Your task to perform on an android device: View the shopping cart on costco.com. Add bose soundlink mini to the cart on costco.com, then select checkout. Image 0: 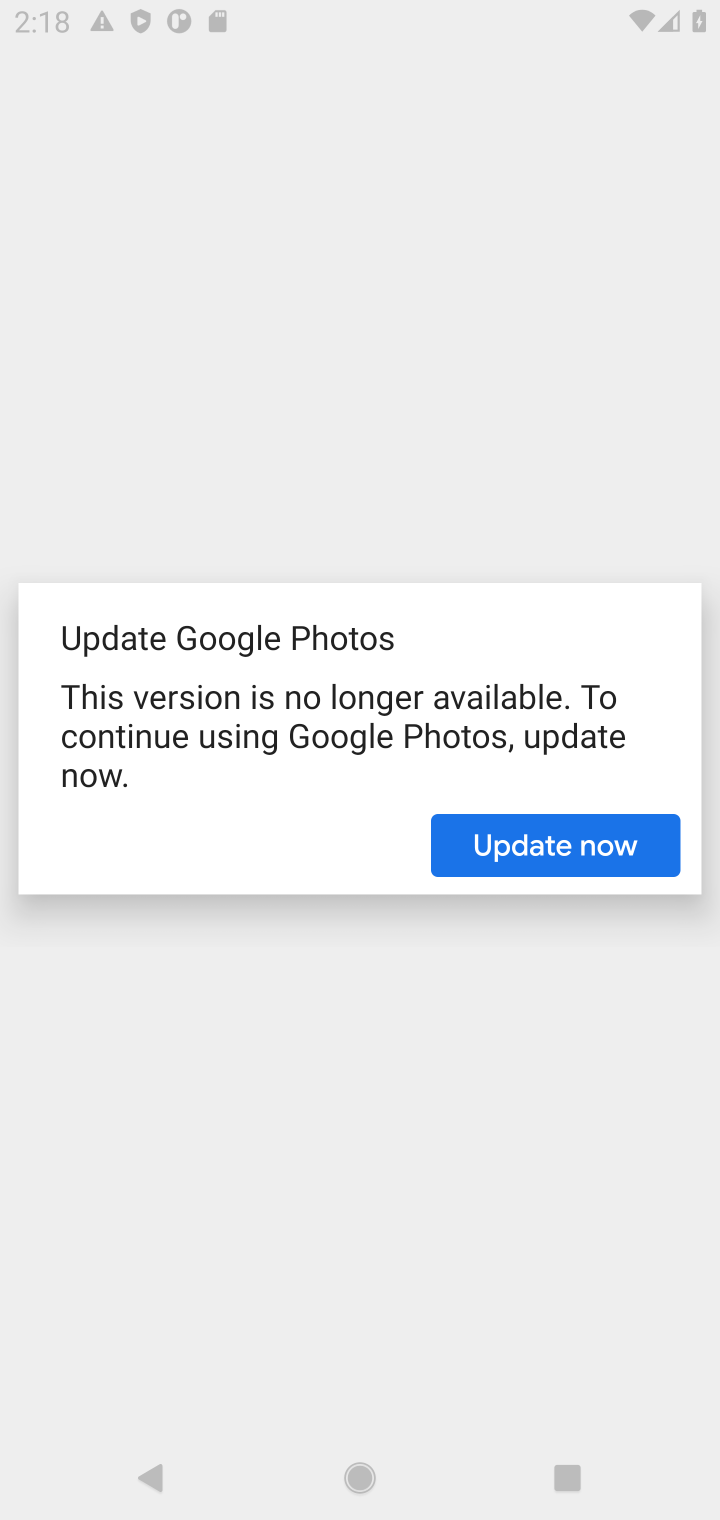
Step 0: press home button
Your task to perform on an android device: View the shopping cart on costco.com. Add bose soundlink mini to the cart on costco.com, then select checkout. Image 1: 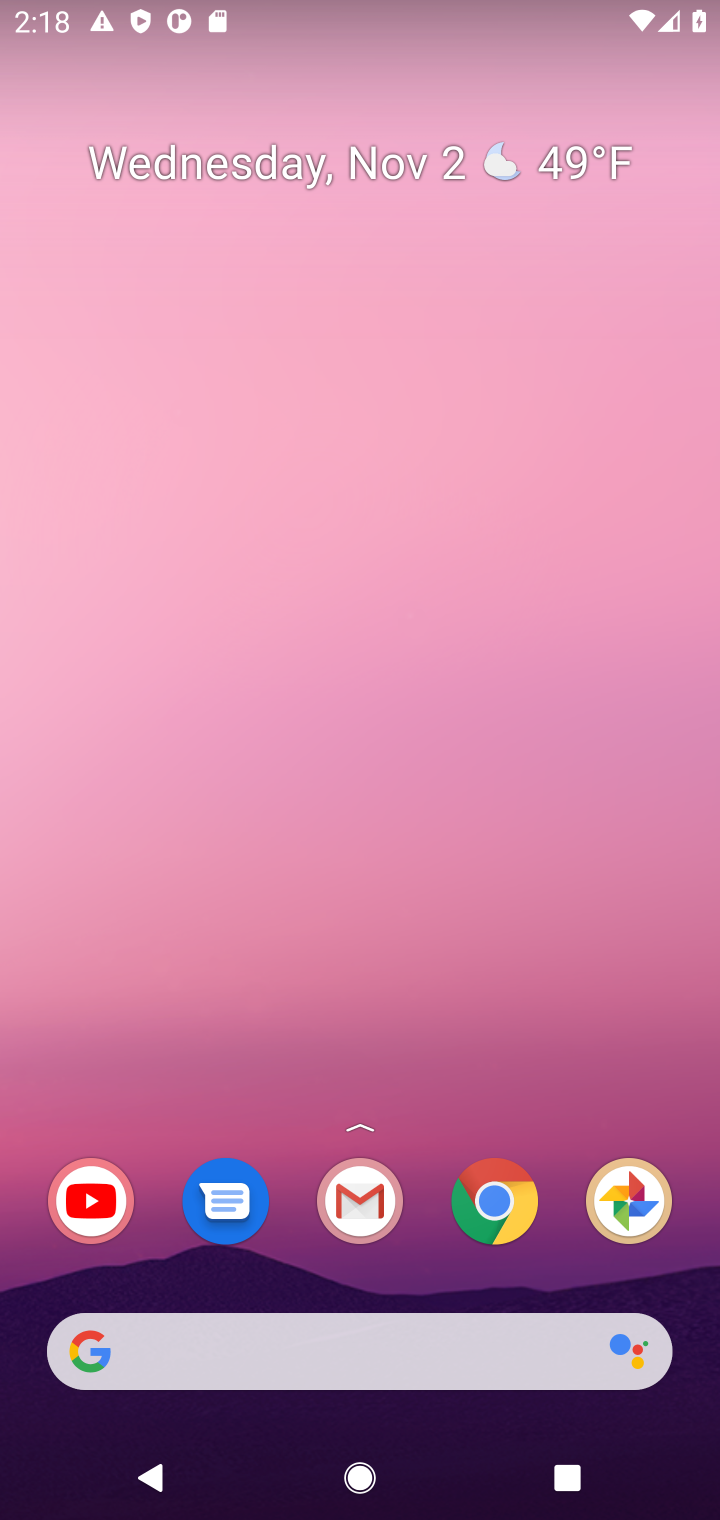
Step 1: click (489, 1187)
Your task to perform on an android device: View the shopping cart on costco.com. Add bose soundlink mini to the cart on costco.com, then select checkout. Image 2: 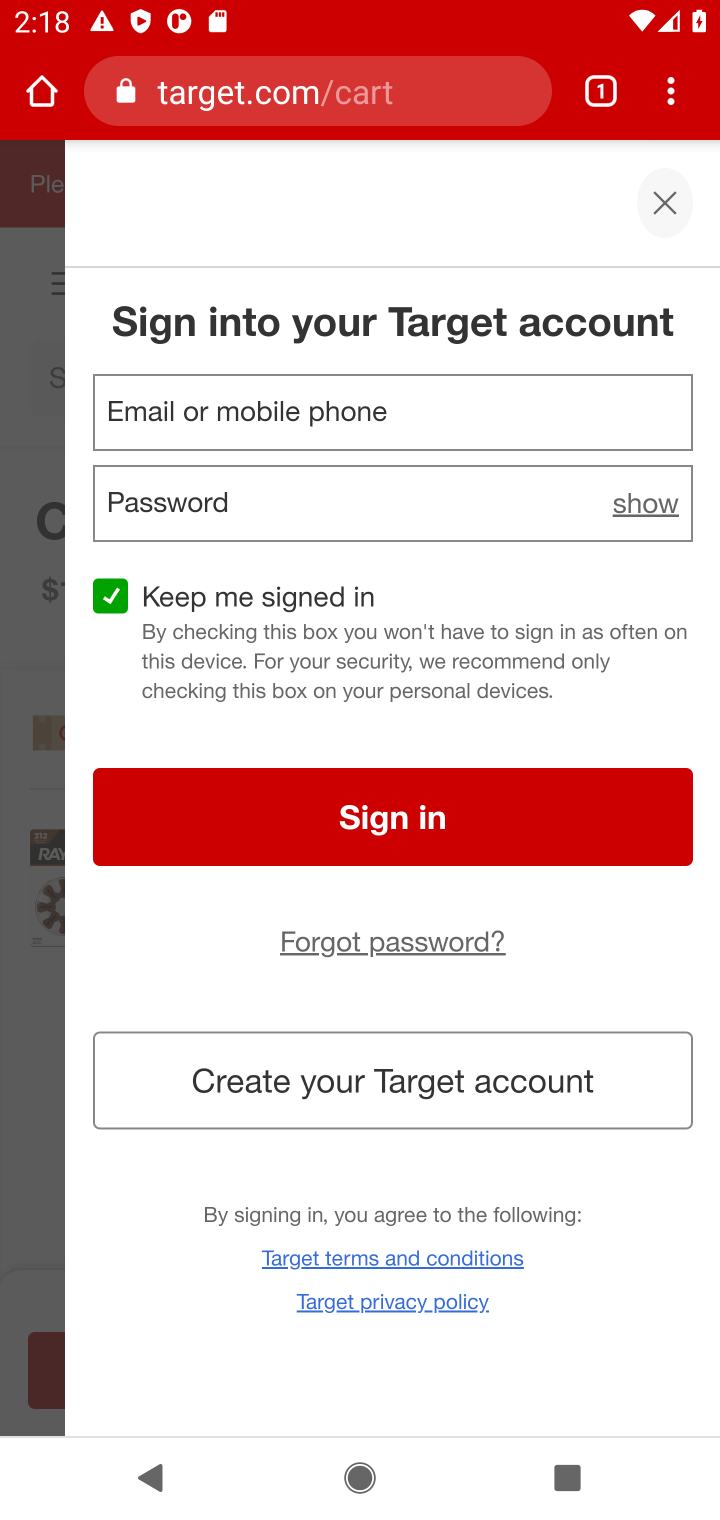
Step 2: click (329, 106)
Your task to perform on an android device: View the shopping cart on costco.com. Add bose soundlink mini to the cart on costco.com, then select checkout. Image 3: 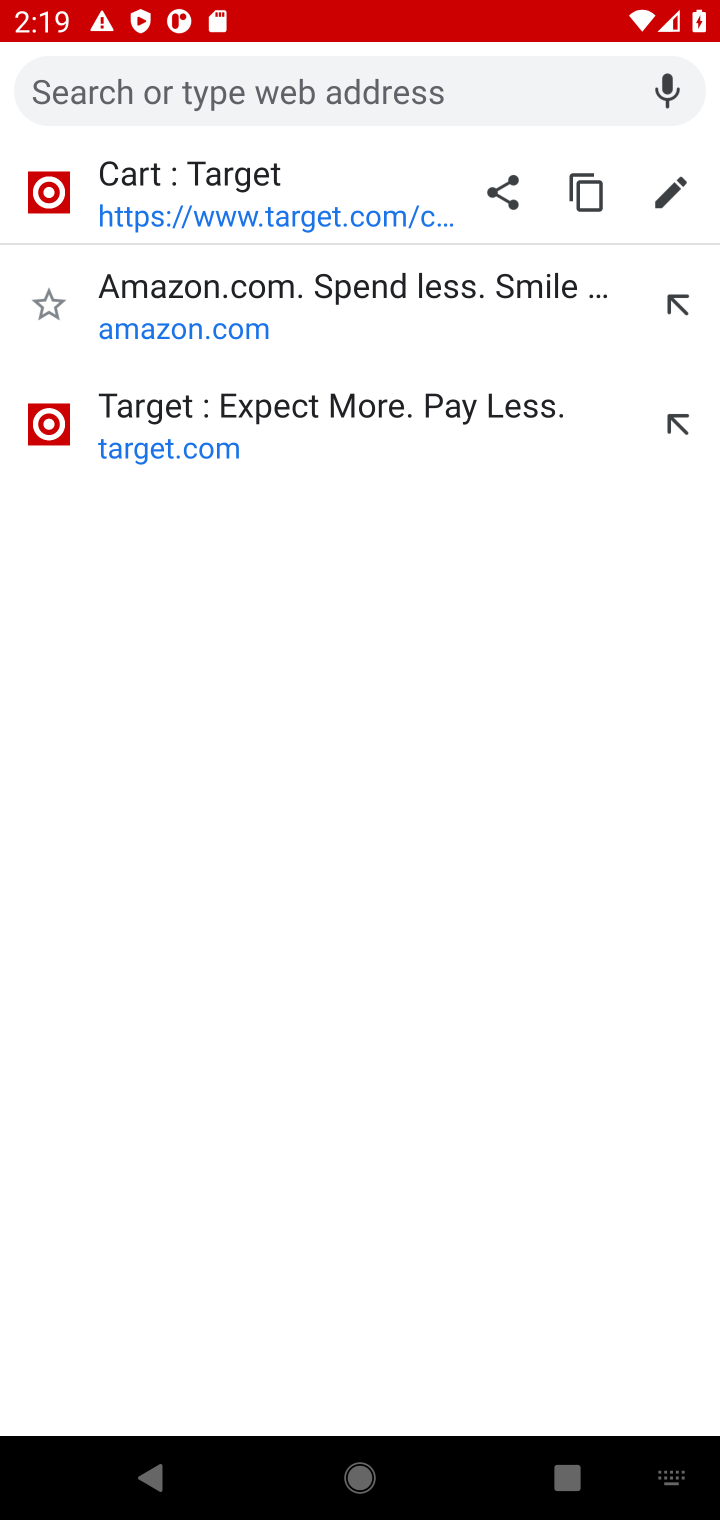
Step 3: type "costco.com"
Your task to perform on an android device: View the shopping cart on costco.com. Add bose soundlink mini to the cart on costco.com, then select checkout. Image 4: 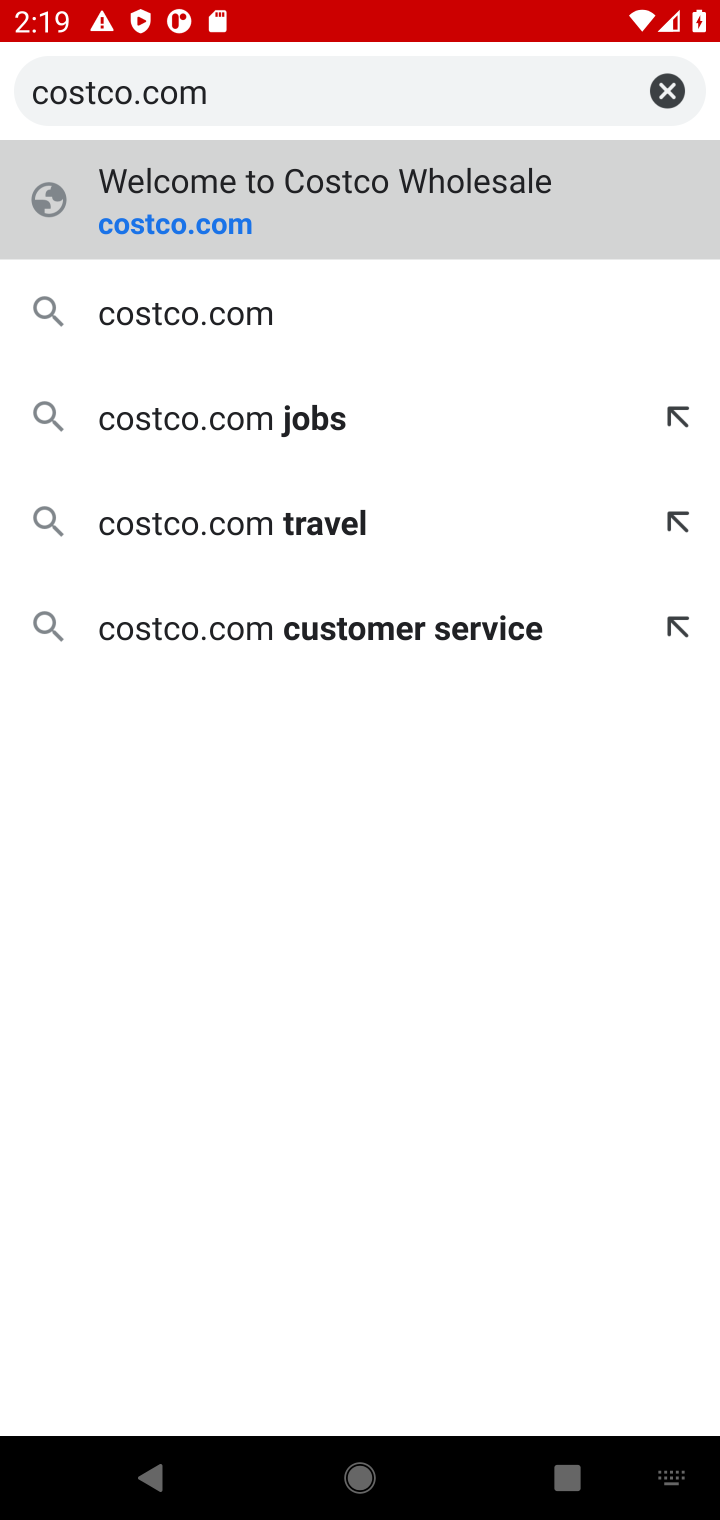
Step 4: press enter
Your task to perform on an android device: View the shopping cart on costco.com. Add bose soundlink mini to the cart on costco.com, then select checkout. Image 5: 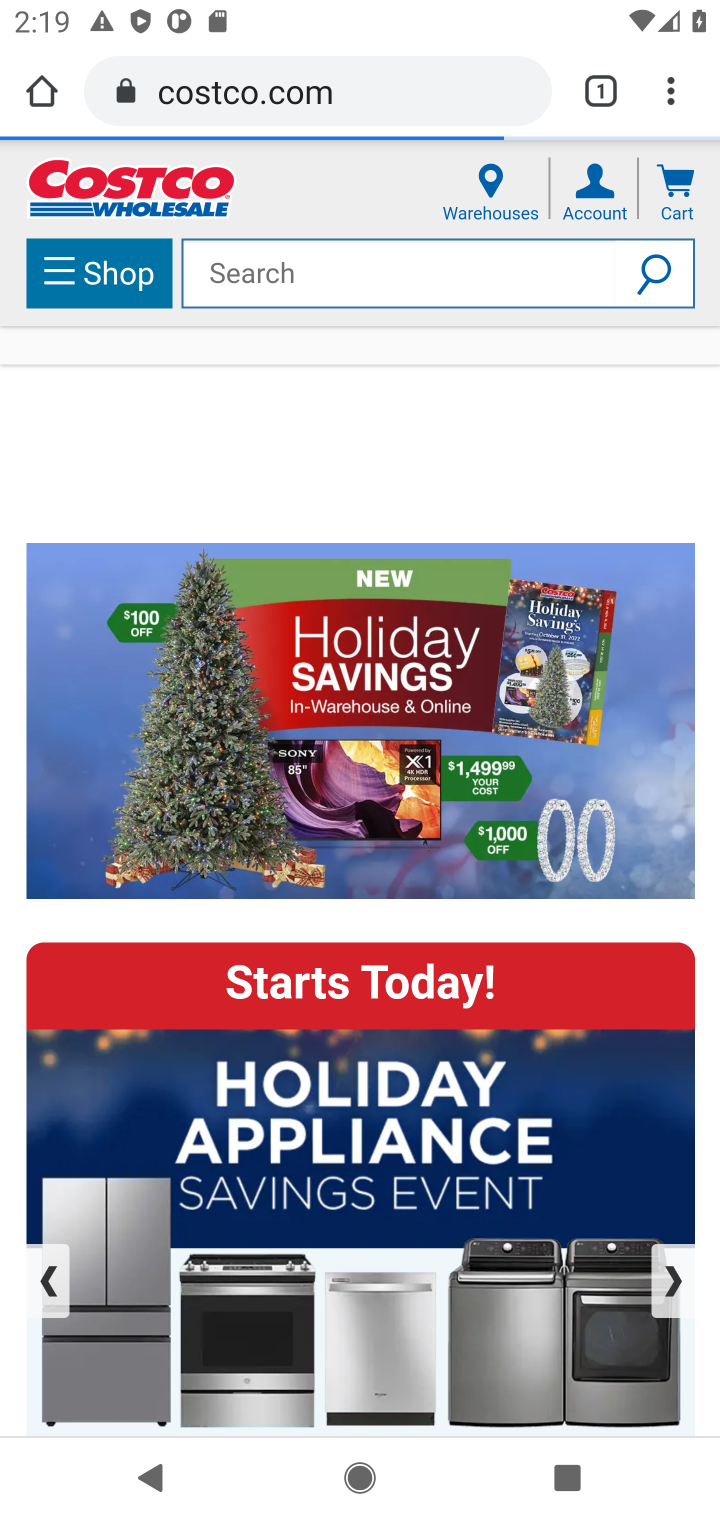
Step 5: click (352, 277)
Your task to perform on an android device: View the shopping cart on costco.com. Add bose soundlink mini to the cart on costco.com, then select checkout. Image 6: 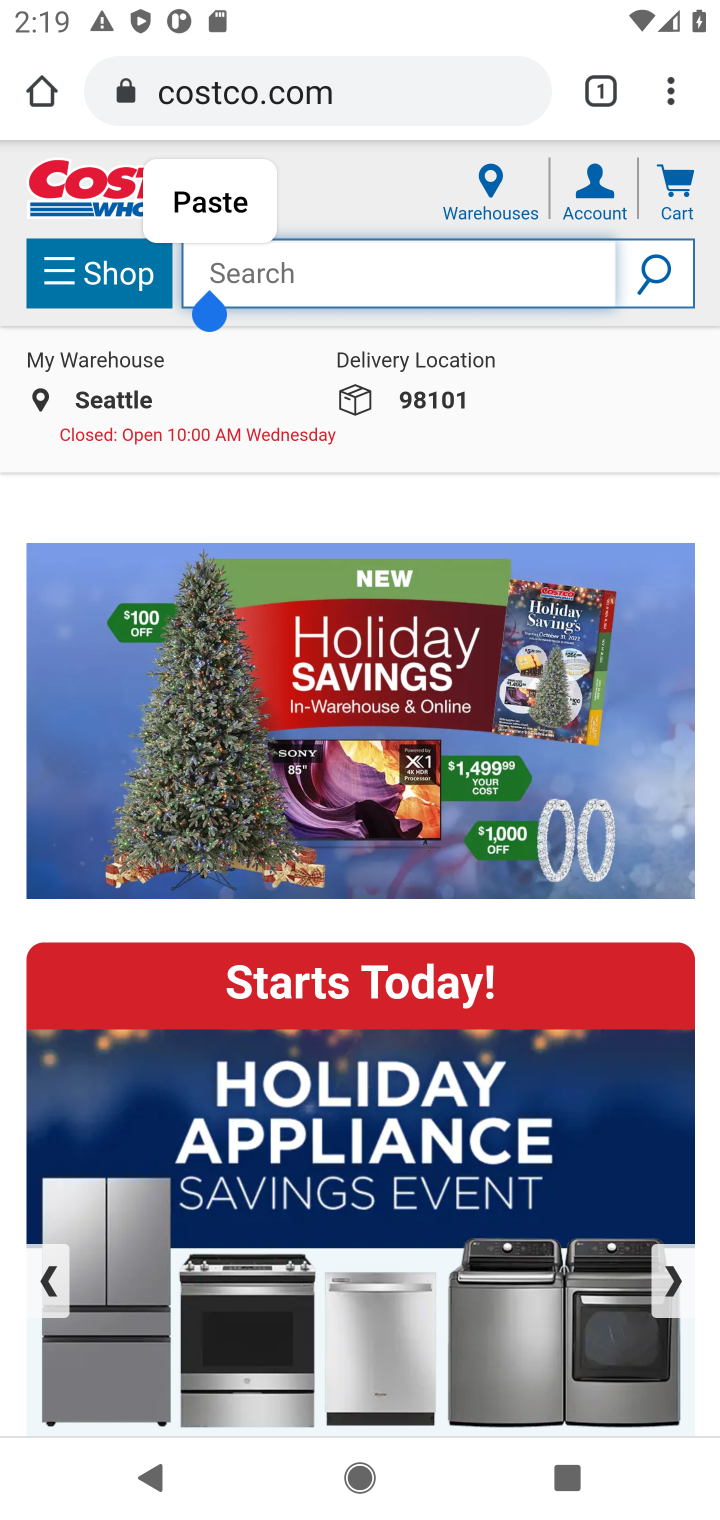
Step 6: type "bose soundlink mini"
Your task to perform on an android device: View the shopping cart on costco.com. Add bose soundlink mini to the cart on costco.com, then select checkout. Image 7: 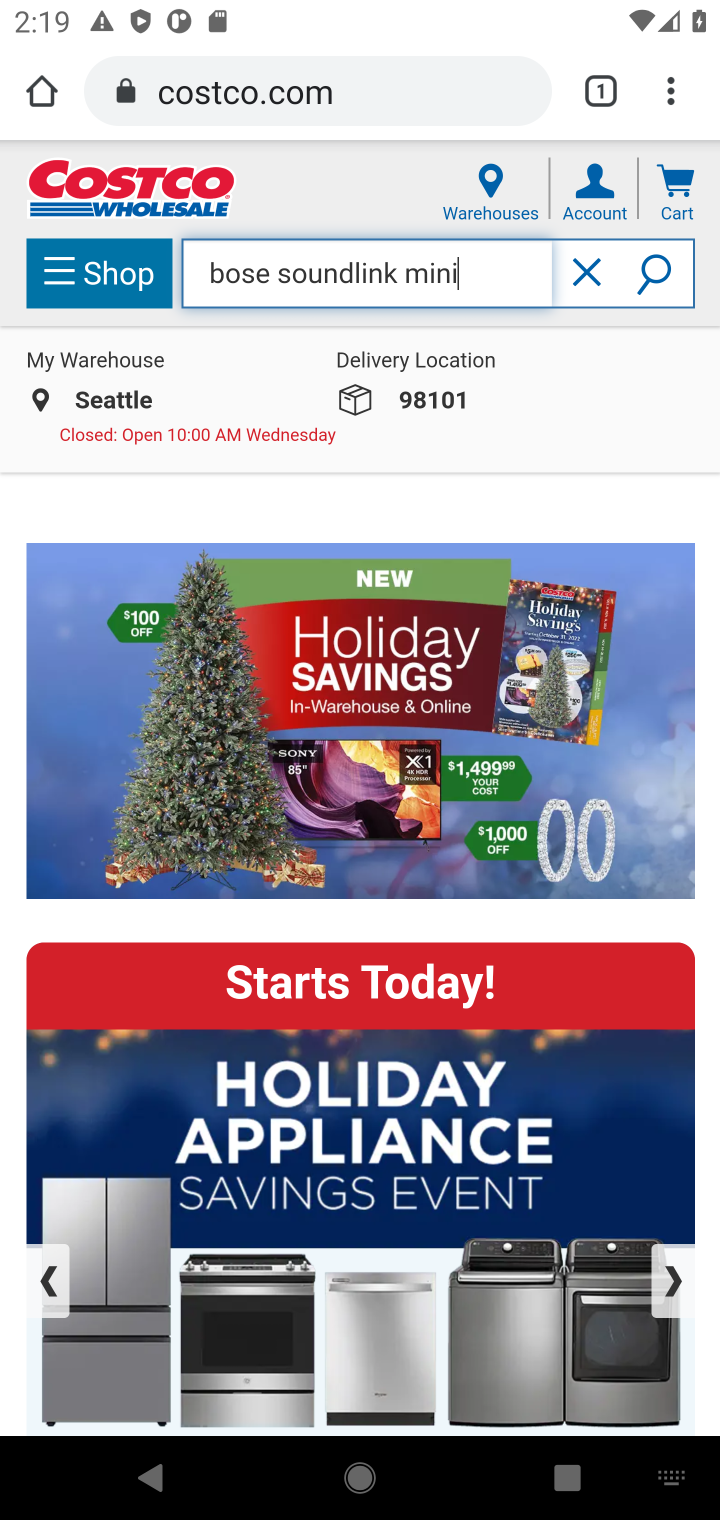
Step 7: press enter
Your task to perform on an android device: View the shopping cart on costco.com. Add bose soundlink mini to the cart on costco.com, then select checkout. Image 8: 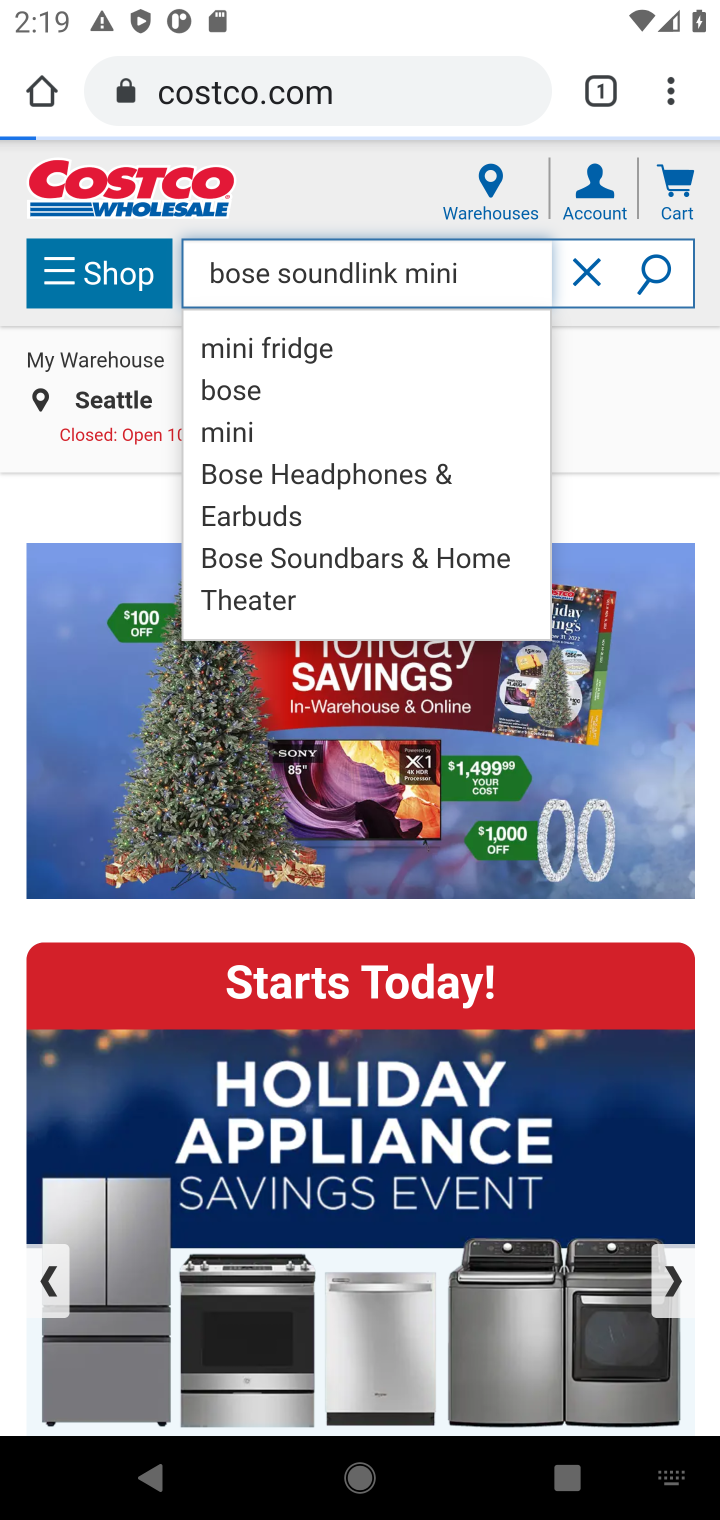
Step 8: press enter
Your task to perform on an android device: View the shopping cart on costco.com. Add bose soundlink mini to the cart on costco.com, then select checkout. Image 9: 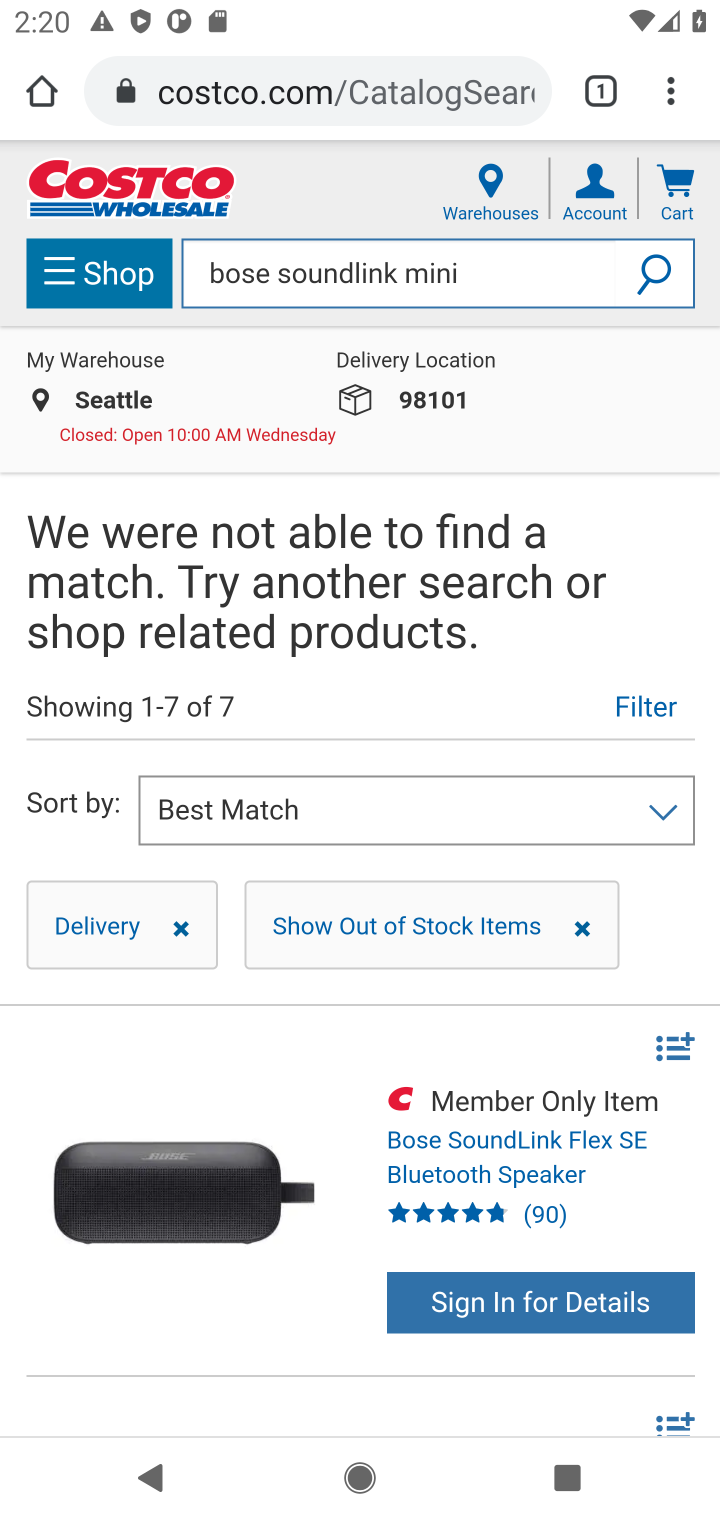
Step 9: task complete